Your task to perform on an android device: clear all cookies in the chrome app Image 0: 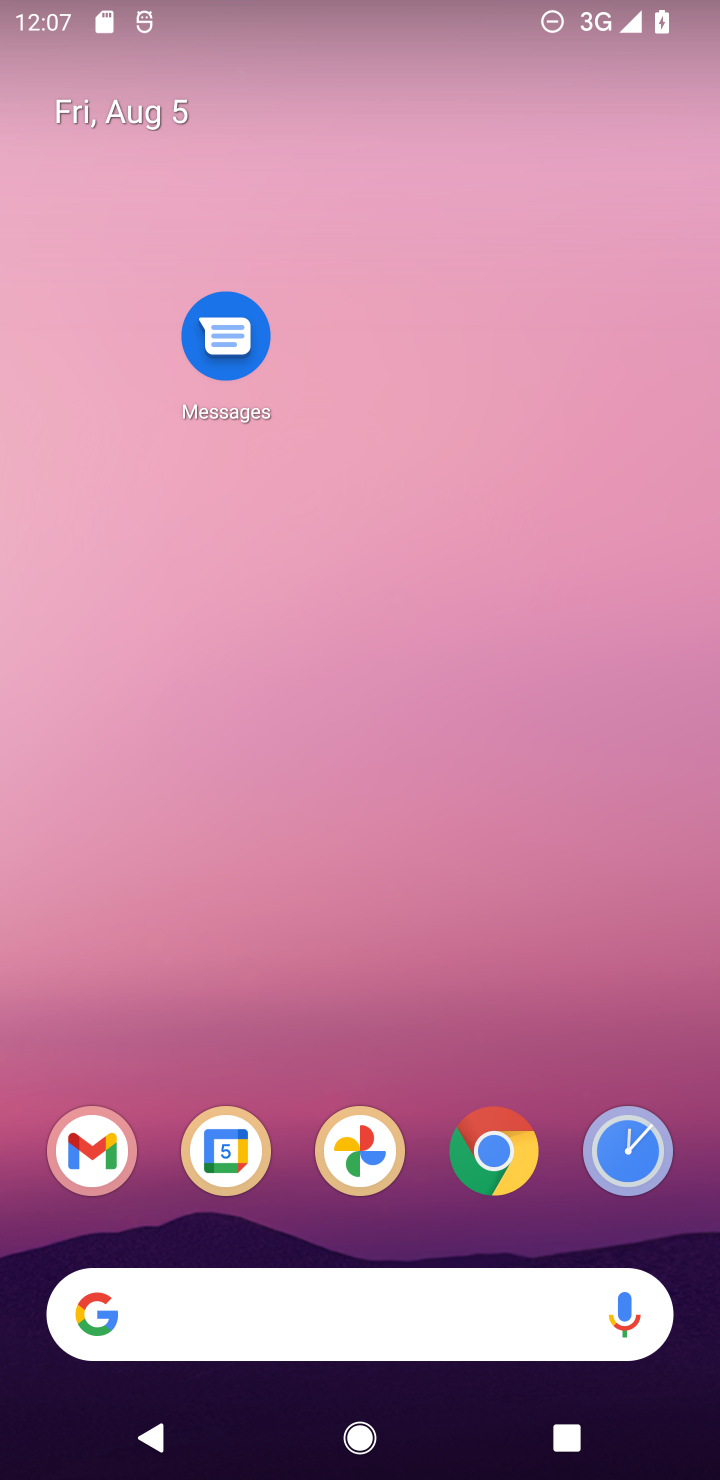
Step 0: press home button
Your task to perform on an android device: clear all cookies in the chrome app Image 1: 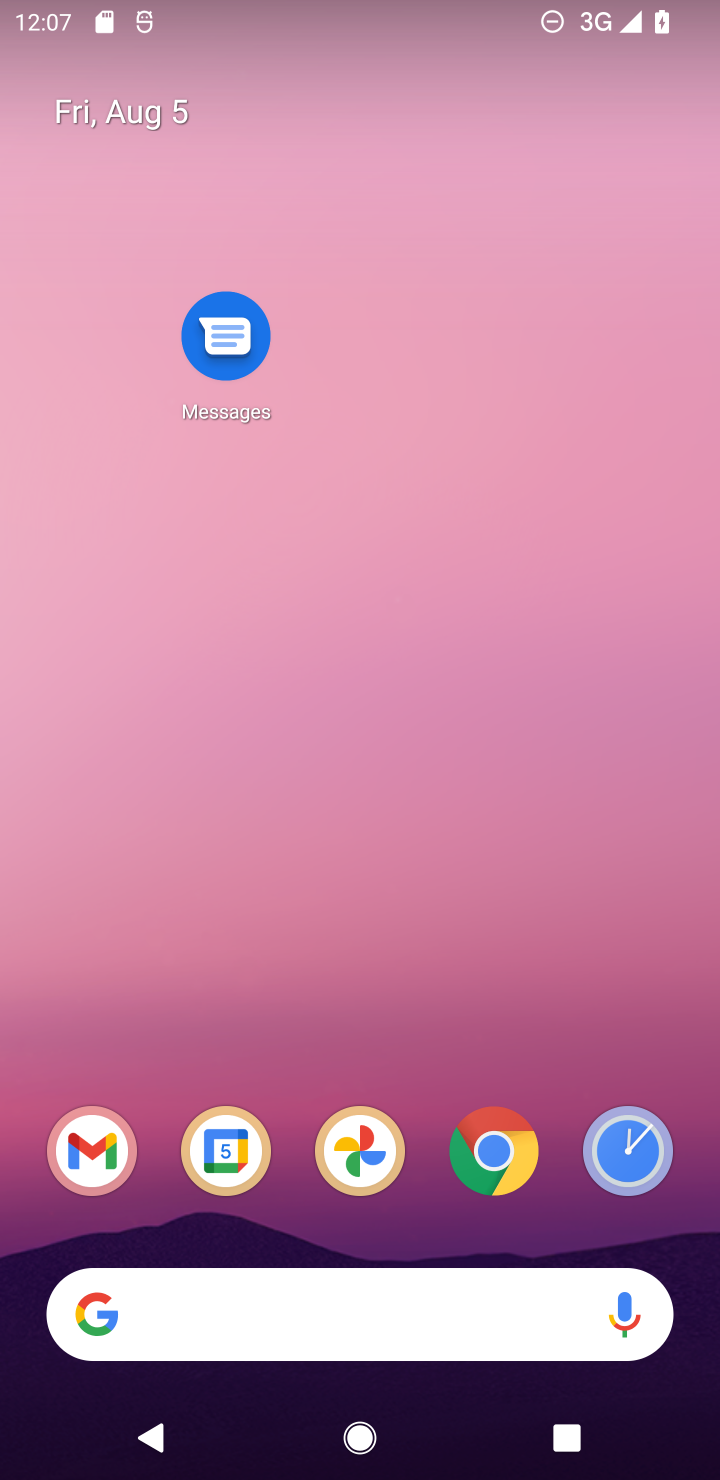
Step 1: click (486, 1153)
Your task to perform on an android device: clear all cookies in the chrome app Image 2: 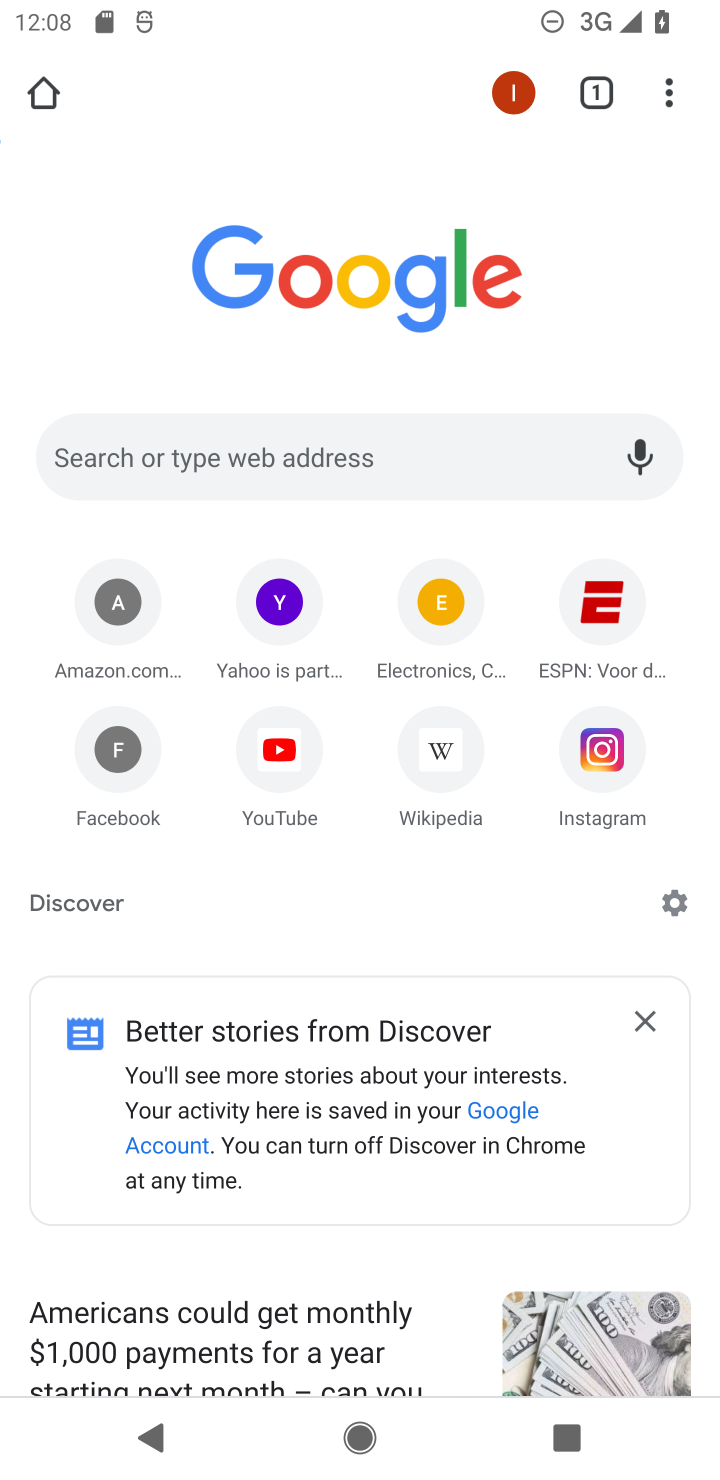
Step 2: click (666, 96)
Your task to perform on an android device: clear all cookies in the chrome app Image 3: 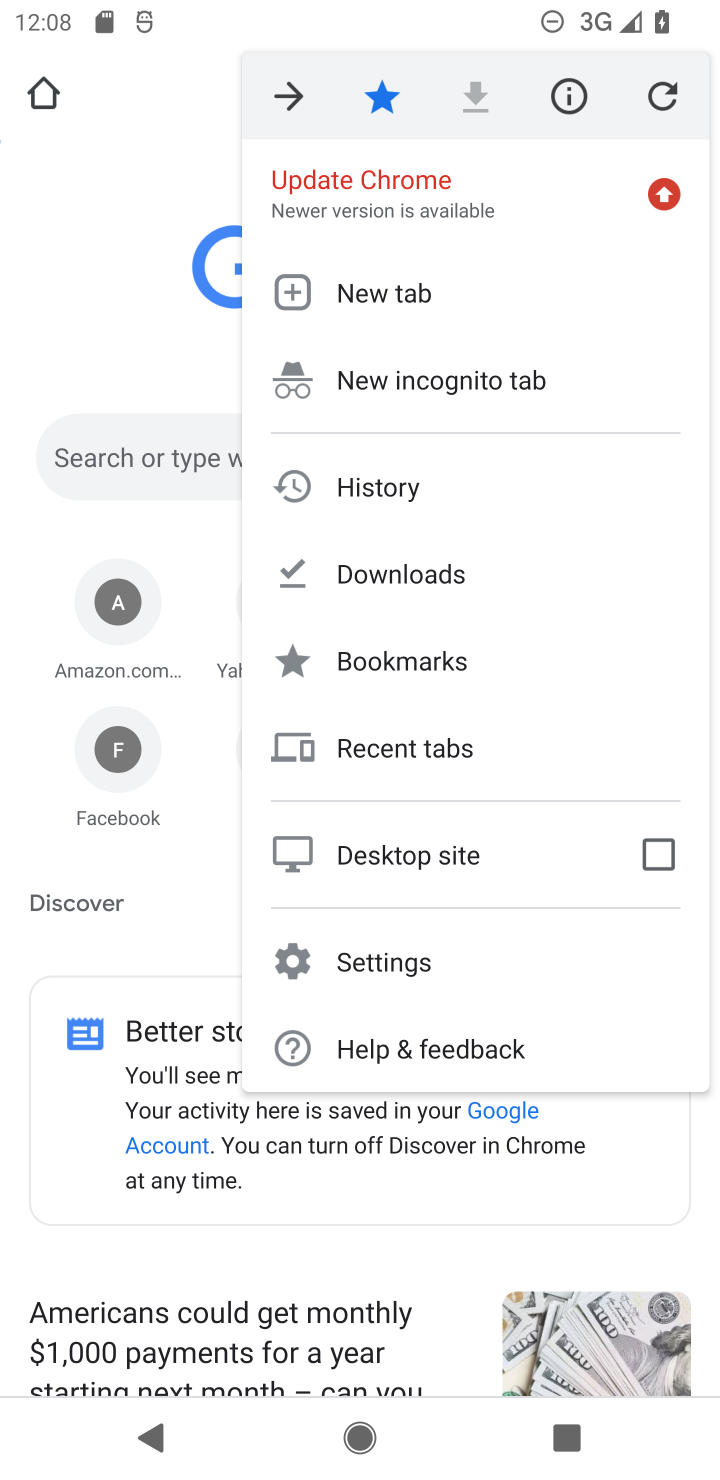
Step 3: click (402, 479)
Your task to perform on an android device: clear all cookies in the chrome app Image 4: 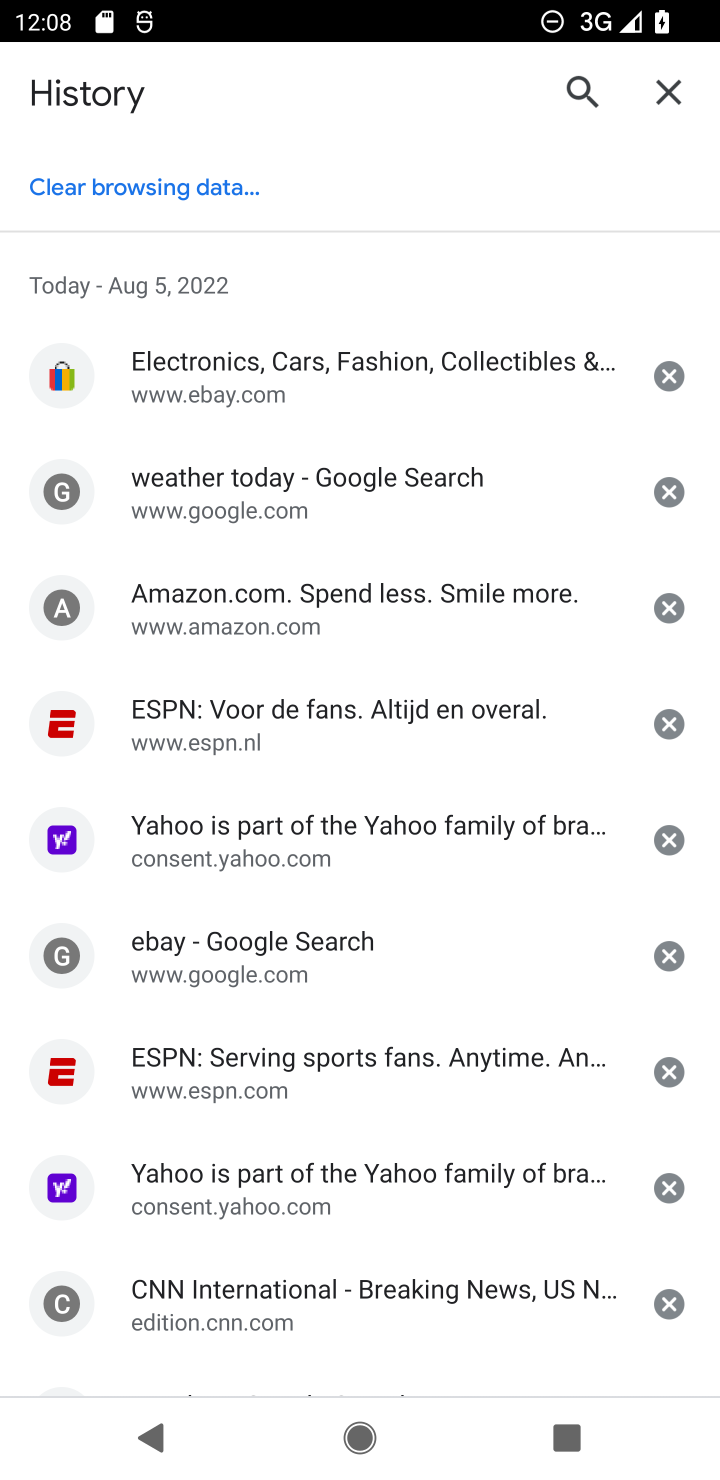
Step 4: click (151, 190)
Your task to perform on an android device: clear all cookies in the chrome app Image 5: 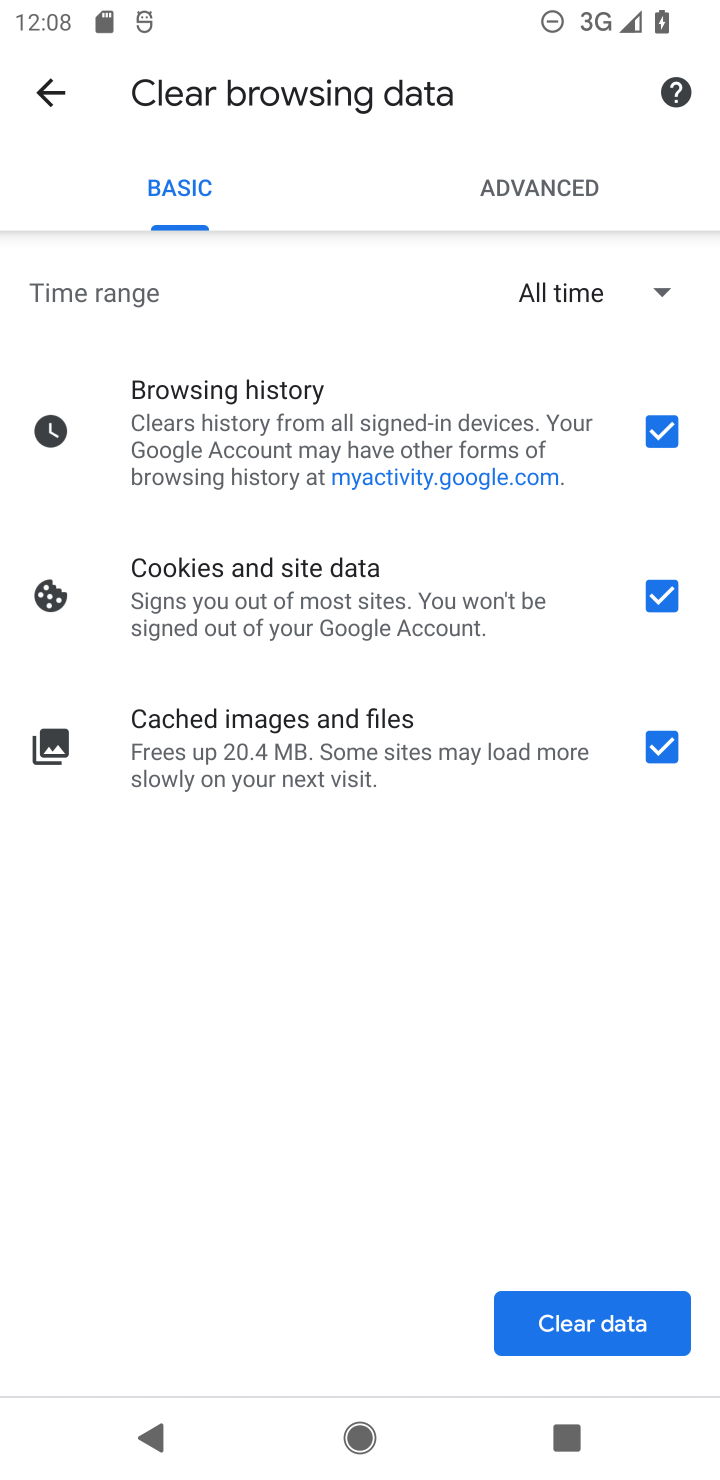
Step 5: click (652, 749)
Your task to perform on an android device: clear all cookies in the chrome app Image 6: 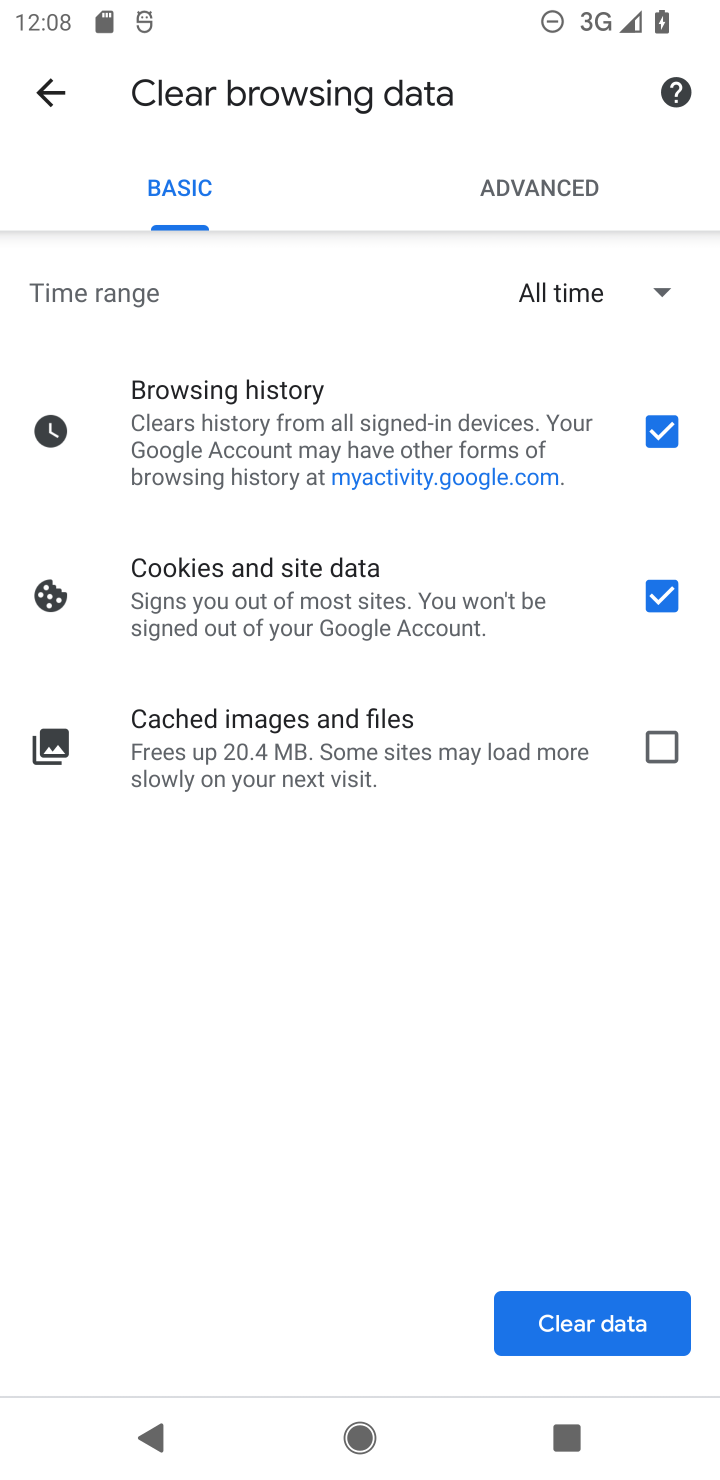
Step 6: click (663, 426)
Your task to perform on an android device: clear all cookies in the chrome app Image 7: 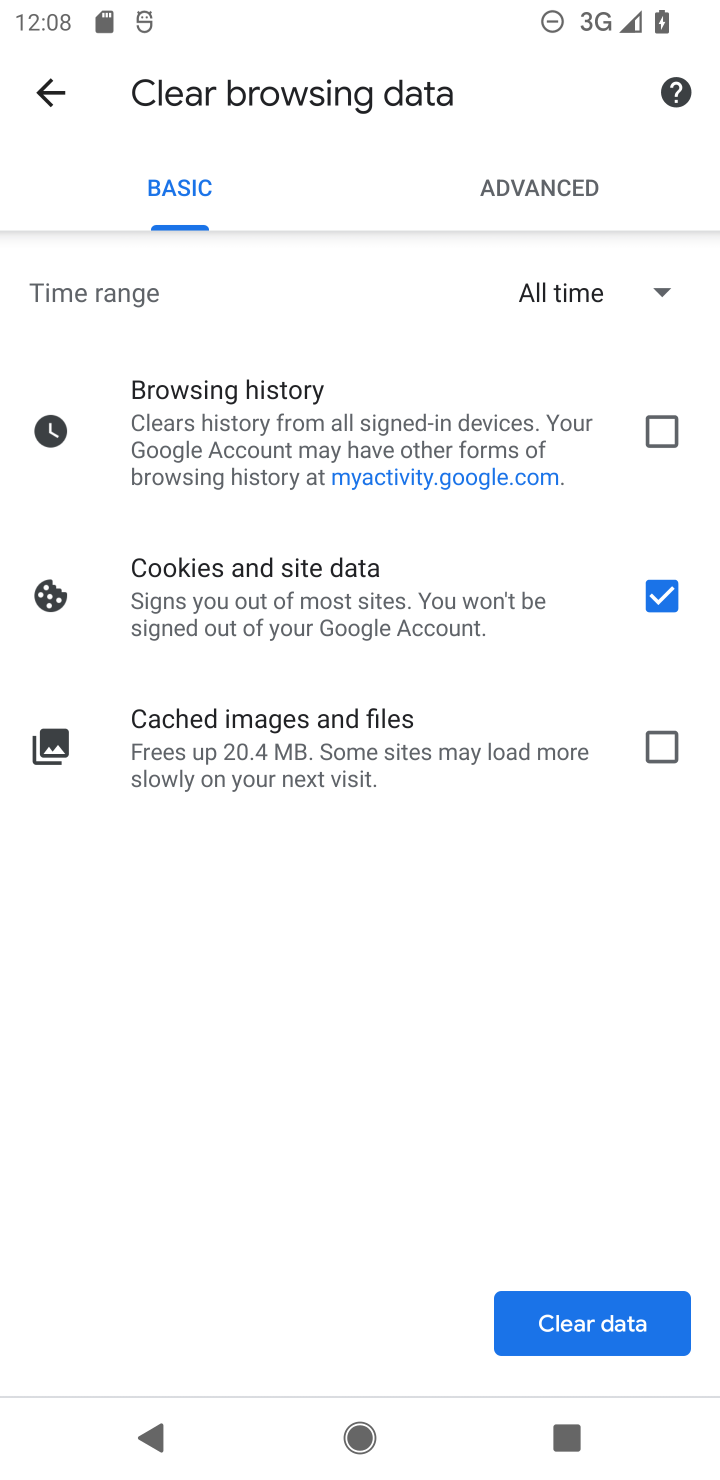
Step 7: click (558, 1318)
Your task to perform on an android device: clear all cookies in the chrome app Image 8: 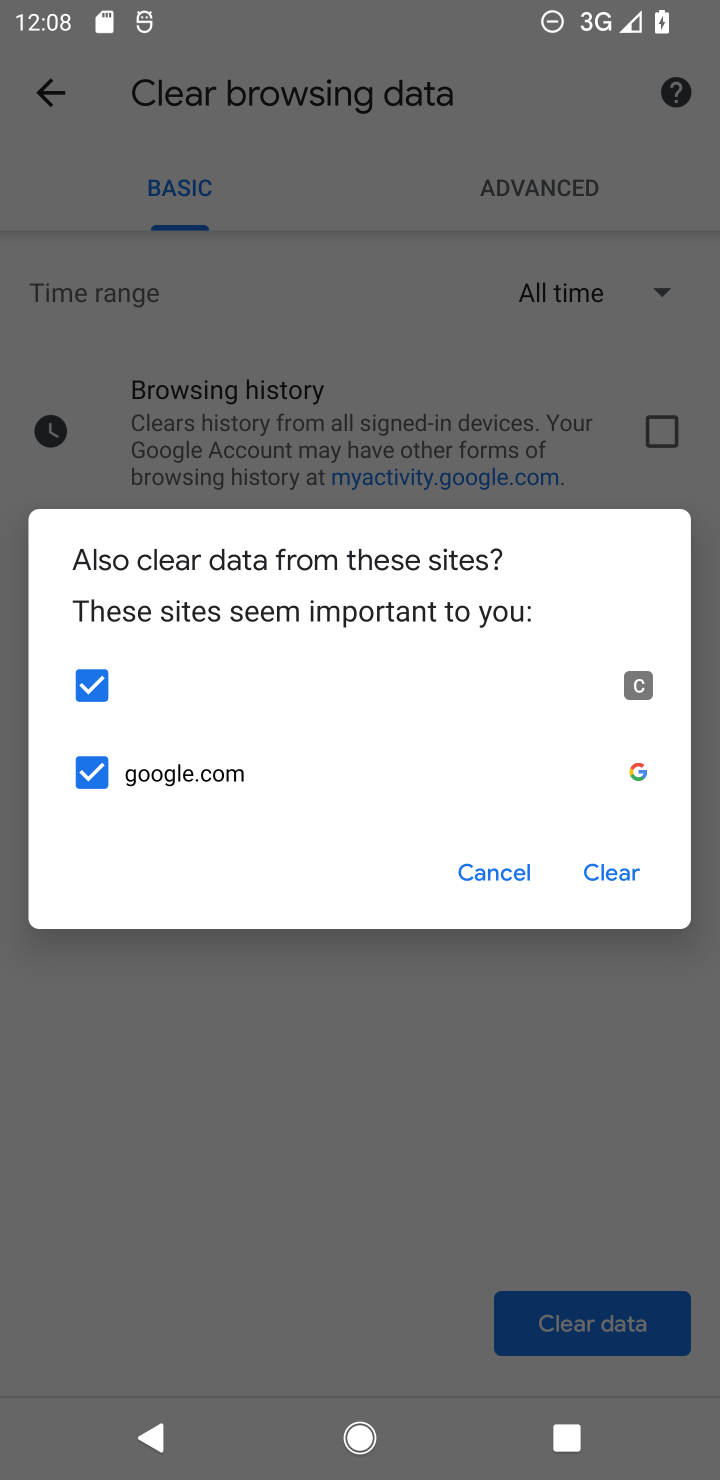
Step 8: click (613, 869)
Your task to perform on an android device: clear all cookies in the chrome app Image 9: 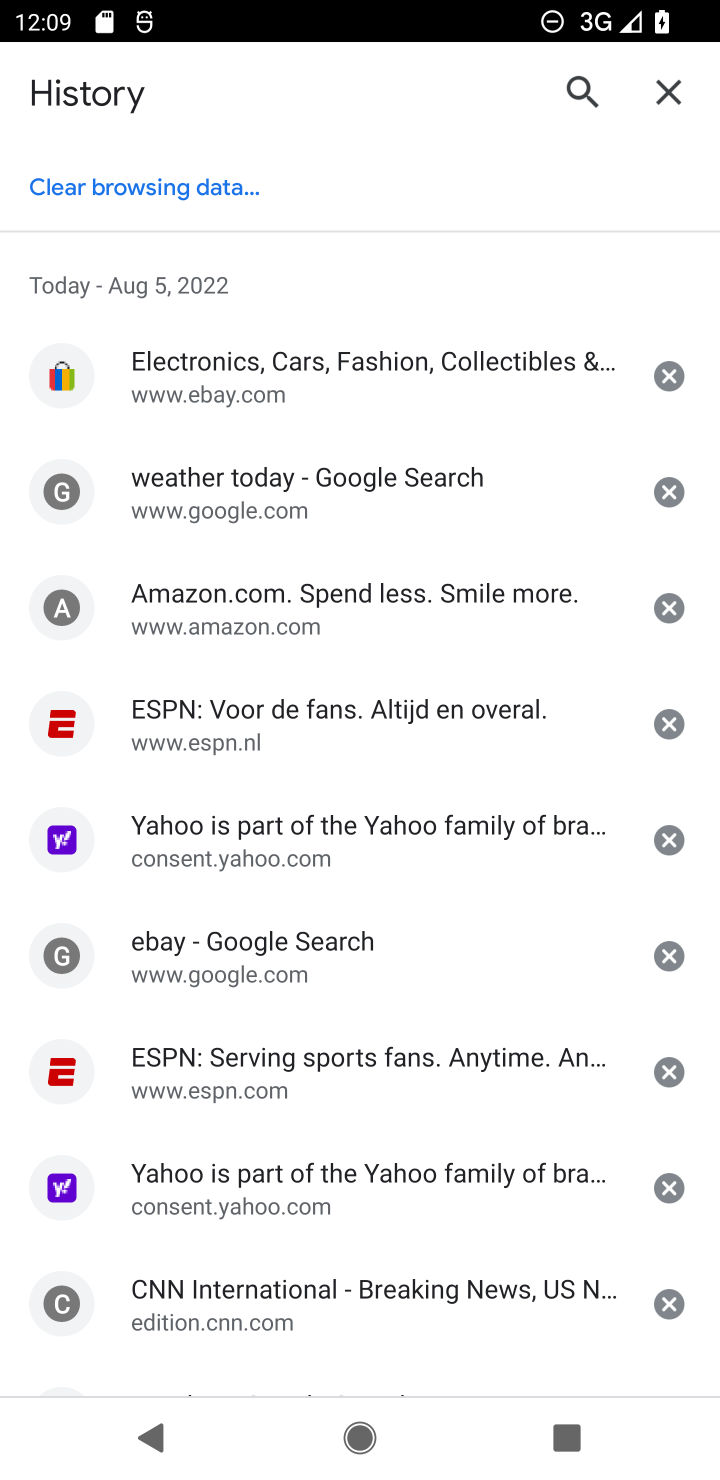
Step 9: press home button
Your task to perform on an android device: clear all cookies in the chrome app Image 10: 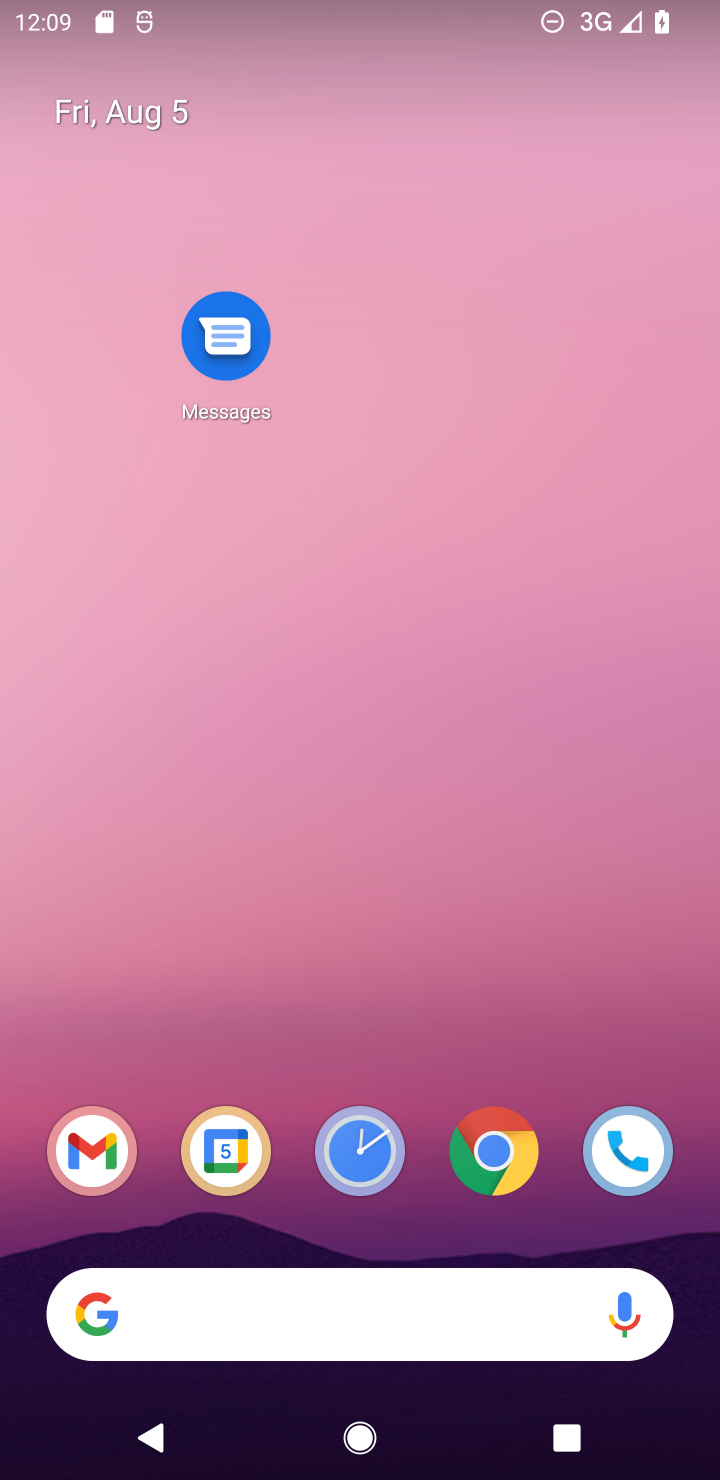
Step 10: click (486, 1118)
Your task to perform on an android device: clear all cookies in the chrome app Image 11: 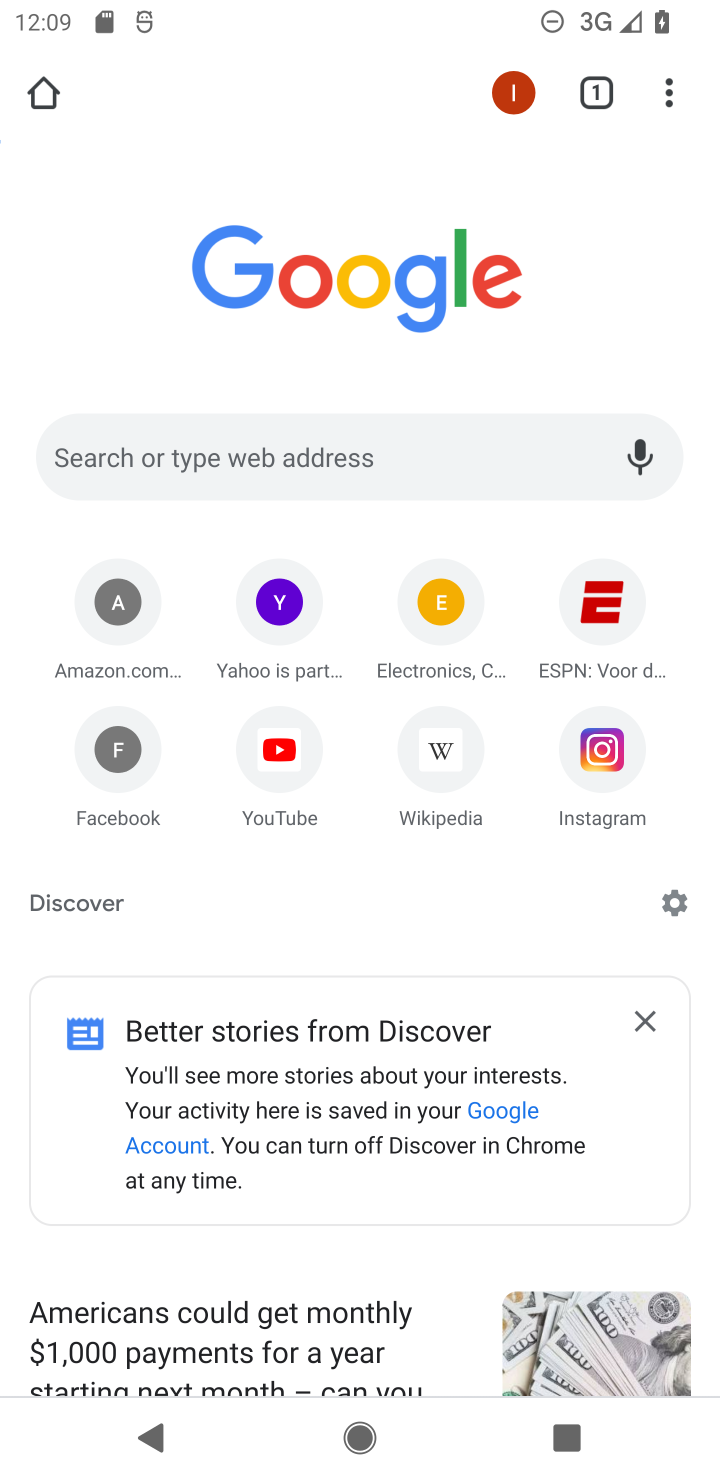
Step 11: click (657, 89)
Your task to perform on an android device: clear all cookies in the chrome app Image 12: 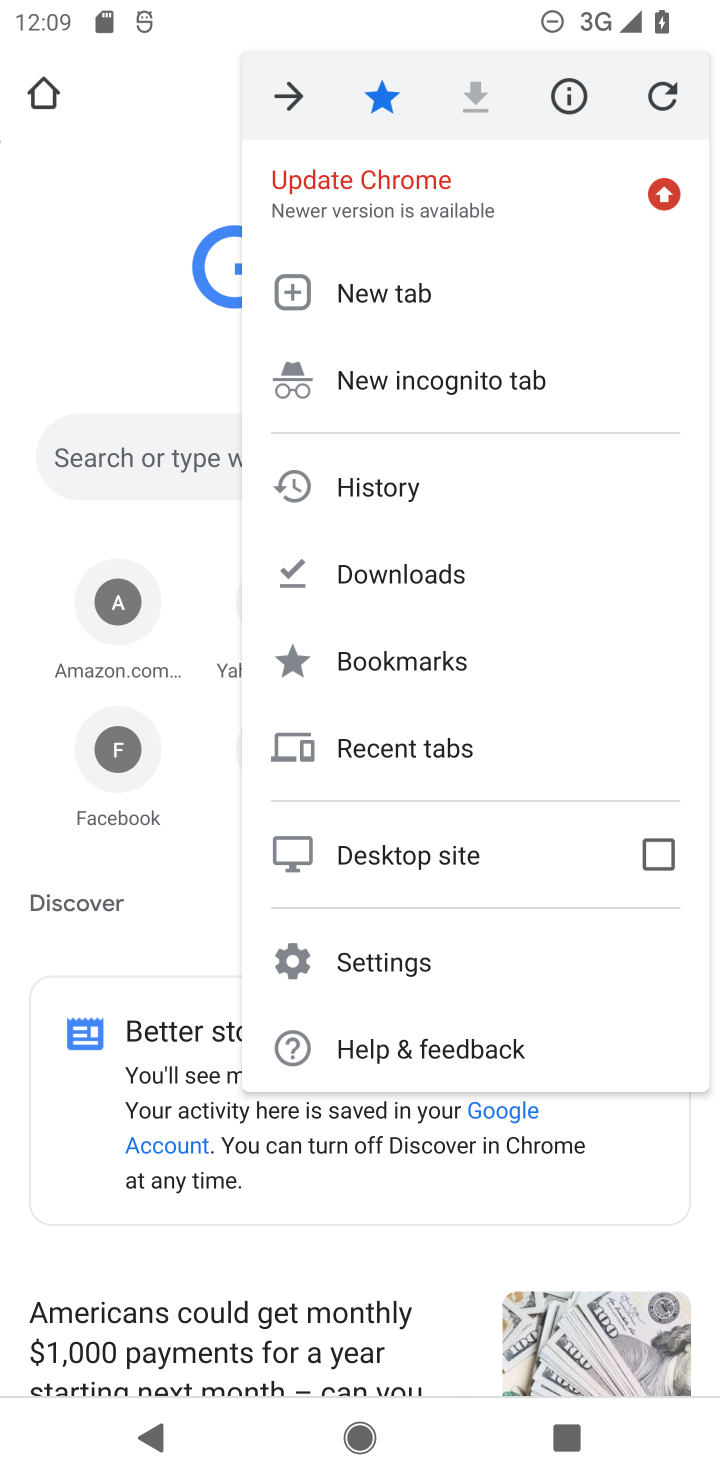
Step 12: click (404, 492)
Your task to perform on an android device: clear all cookies in the chrome app Image 13: 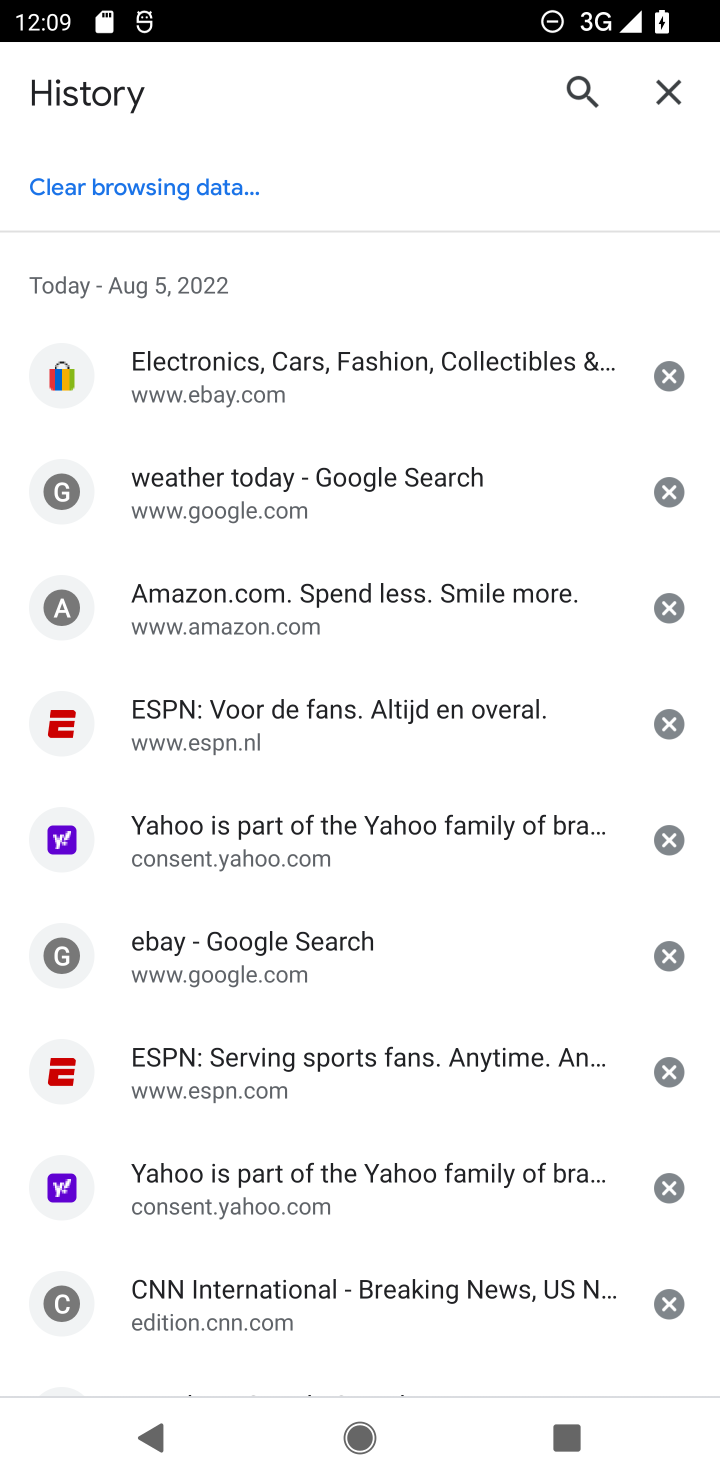
Step 13: click (205, 192)
Your task to perform on an android device: clear all cookies in the chrome app Image 14: 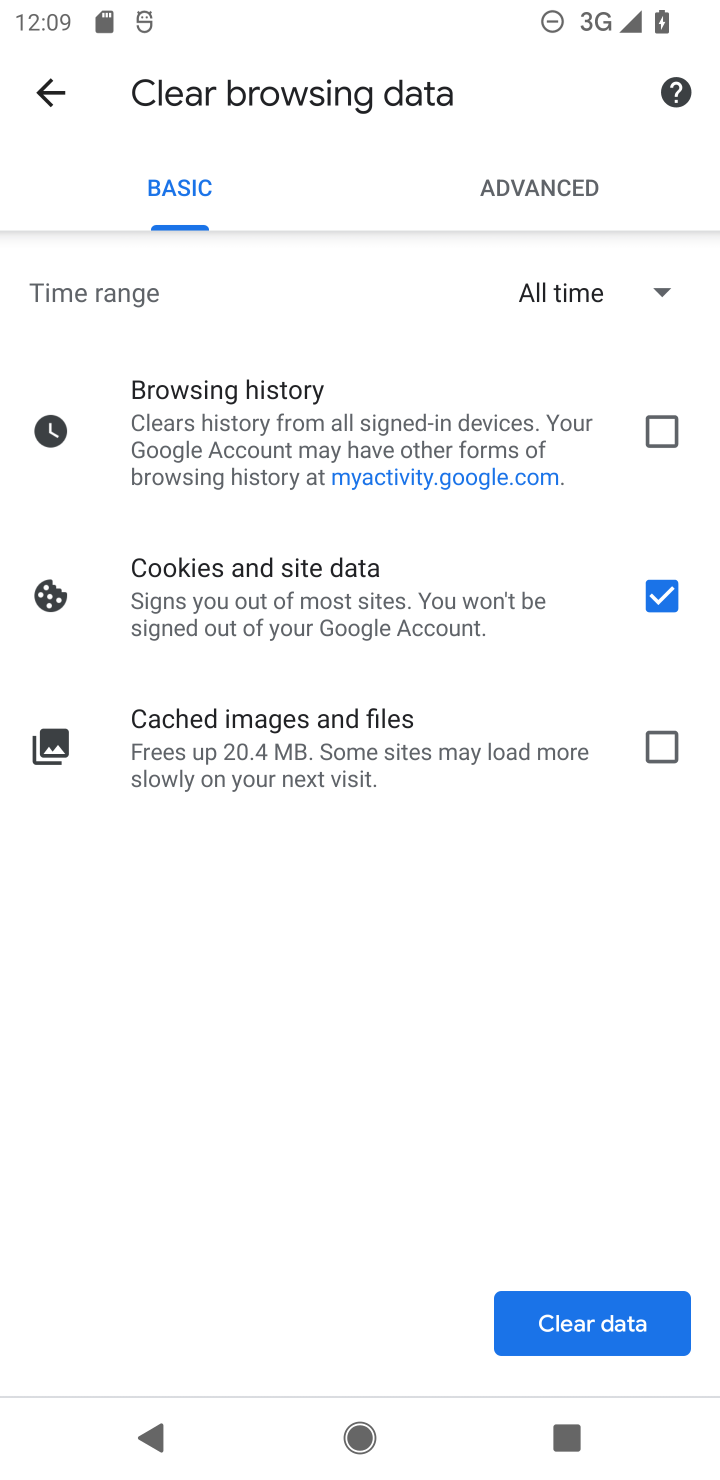
Step 14: click (627, 1322)
Your task to perform on an android device: clear all cookies in the chrome app Image 15: 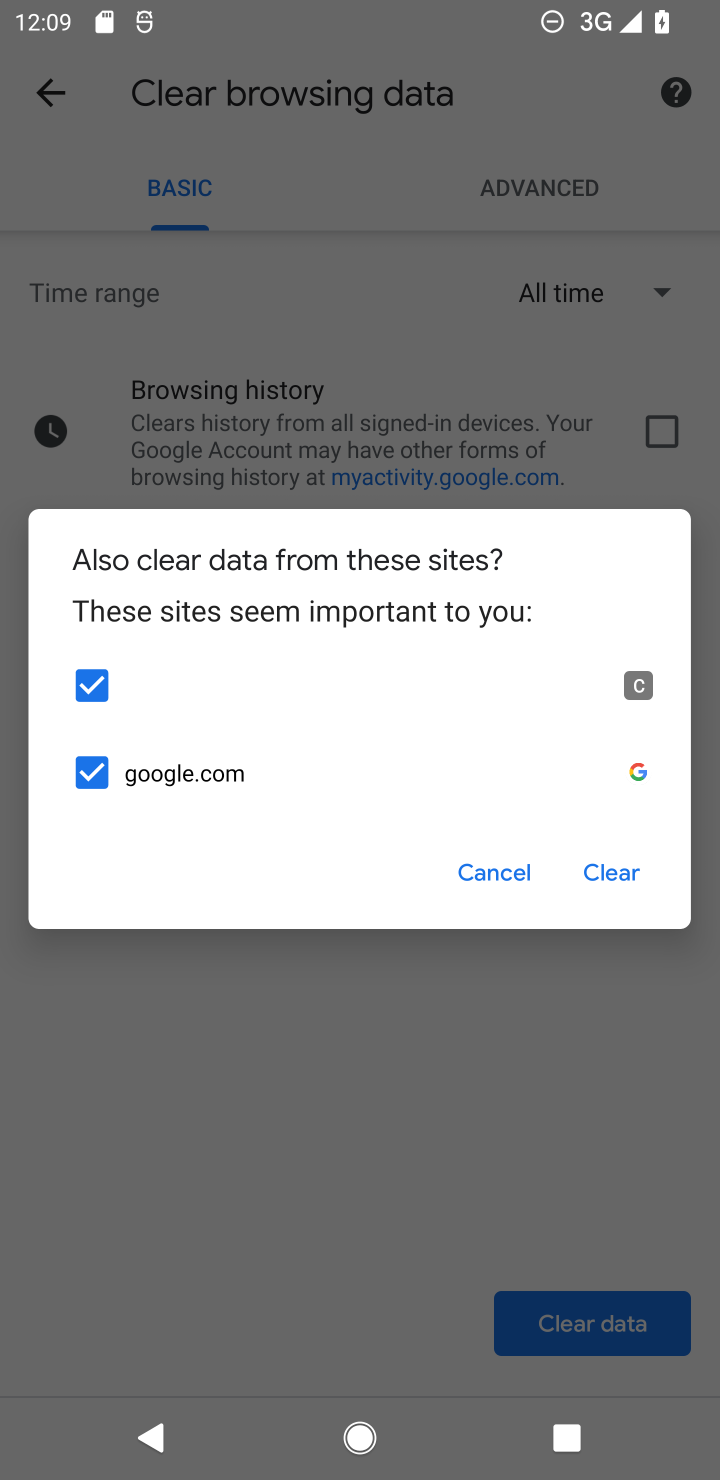
Step 15: click (631, 860)
Your task to perform on an android device: clear all cookies in the chrome app Image 16: 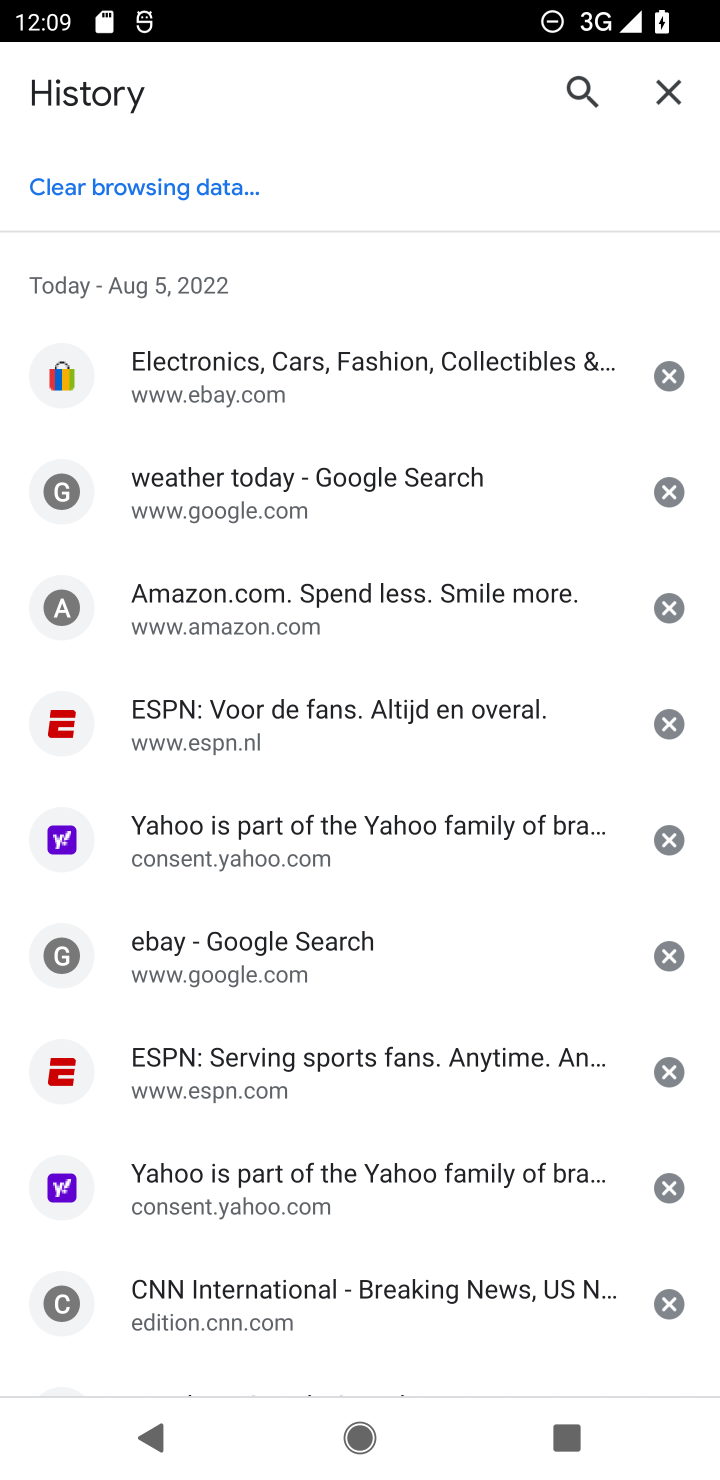
Step 16: task complete